Your task to perform on an android device: Go to eBay Image 0: 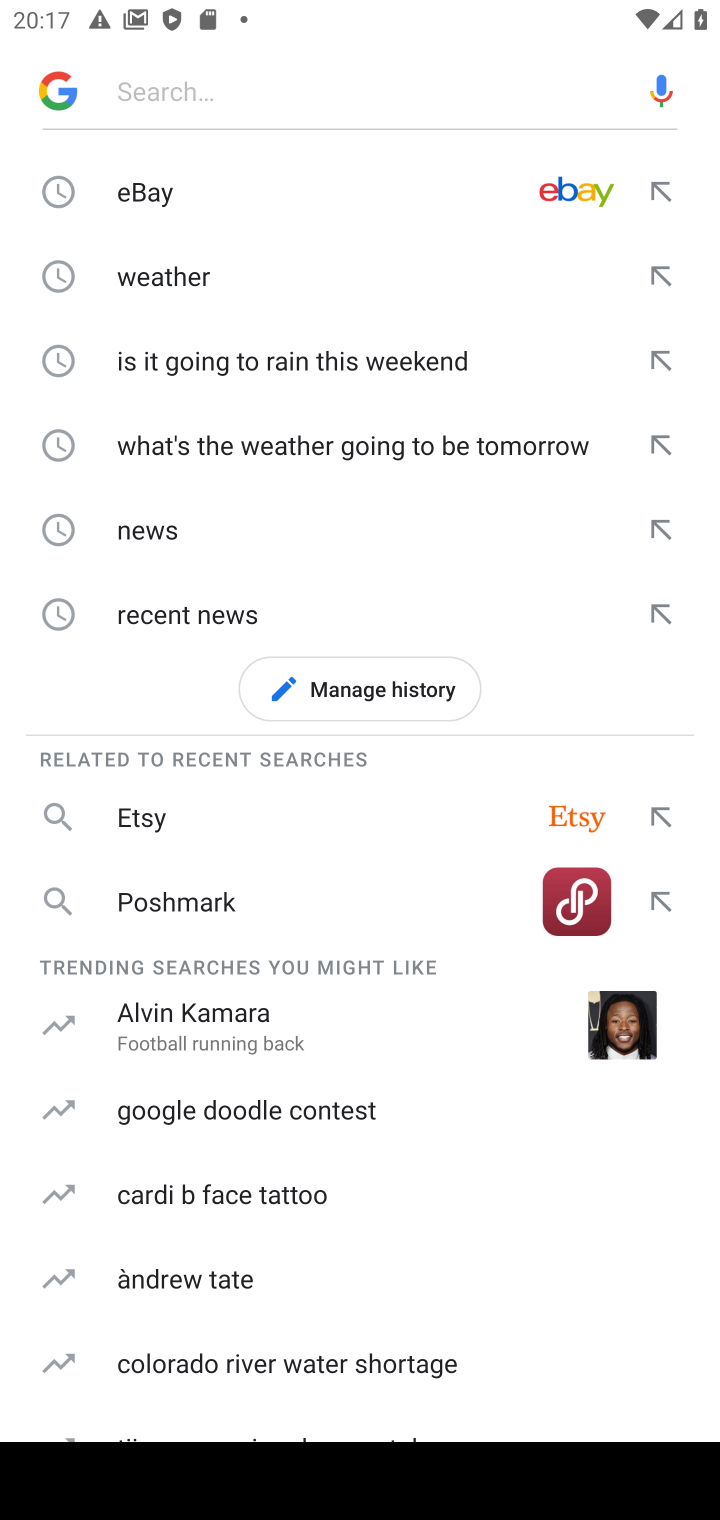
Step 0: click (572, 187)
Your task to perform on an android device: Go to eBay Image 1: 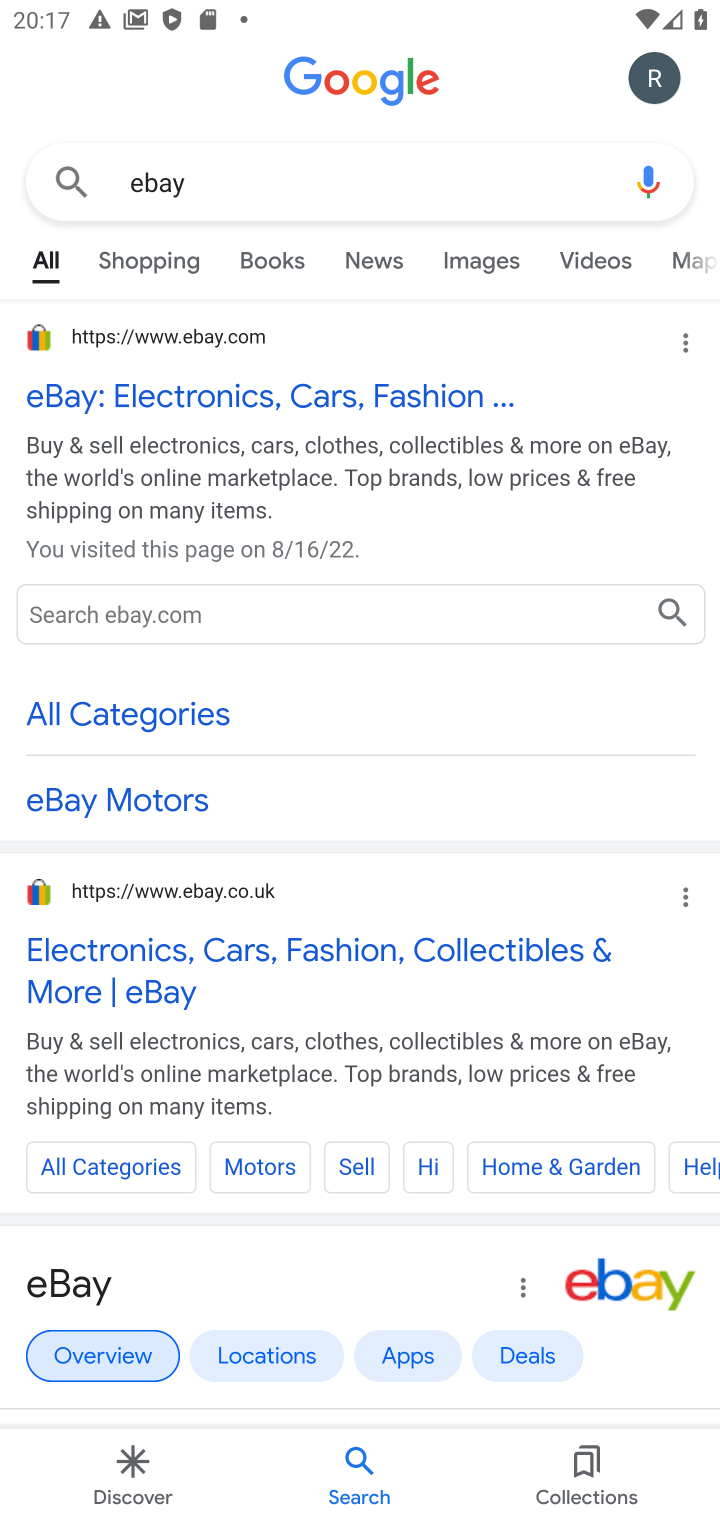
Step 1: task complete